Your task to perform on an android device: open sync settings in chrome Image 0: 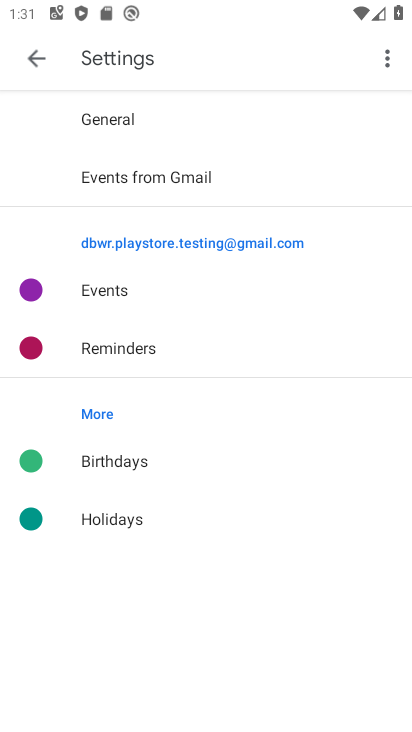
Step 0: press home button
Your task to perform on an android device: open sync settings in chrome Image 1: 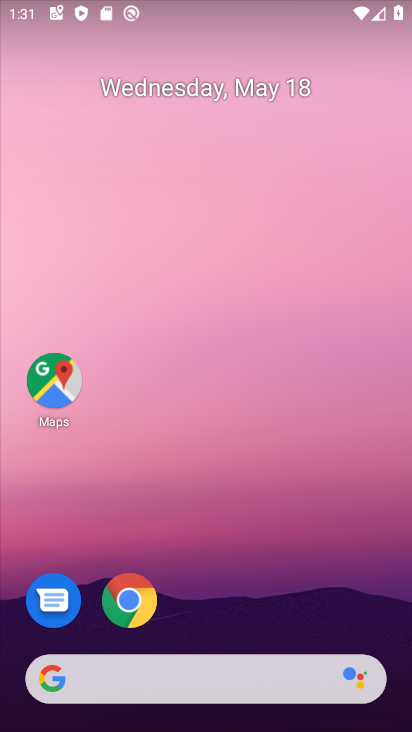
Step 1: click (130, 601)
Your task to perform on an android device: open sync settings in chrome Image 2: 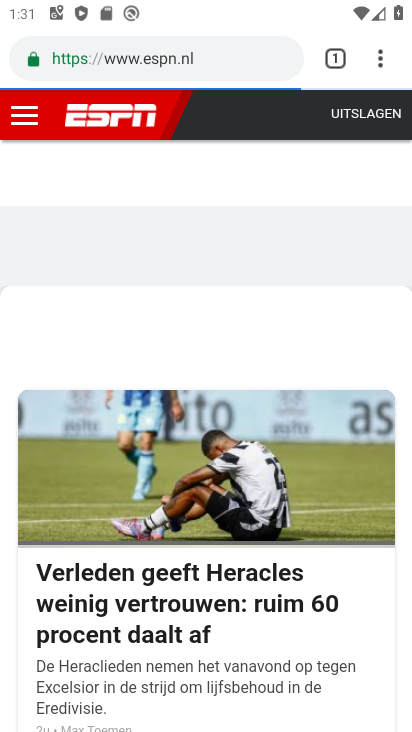
Step 2: click (381, 57)
Your task to perform on an android device: open sync settings in chrome Image 3: 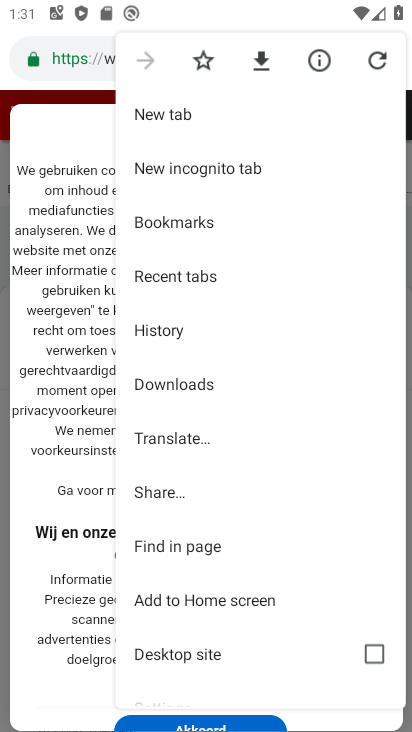
Step 3: drag from (220, 577) to (242, 498)
Your task to perform on an android device: open sync settings in chrome Image 4: 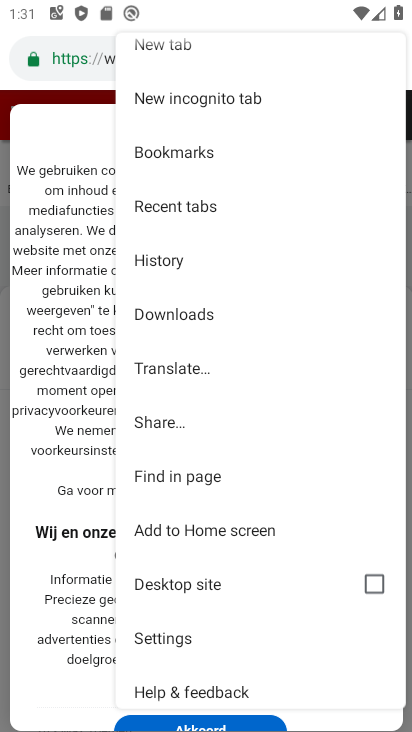
Step 4: drag from (189, 596) to (218, 525)
Your task to perform on an android device: open sync settings in chrome Image 5: 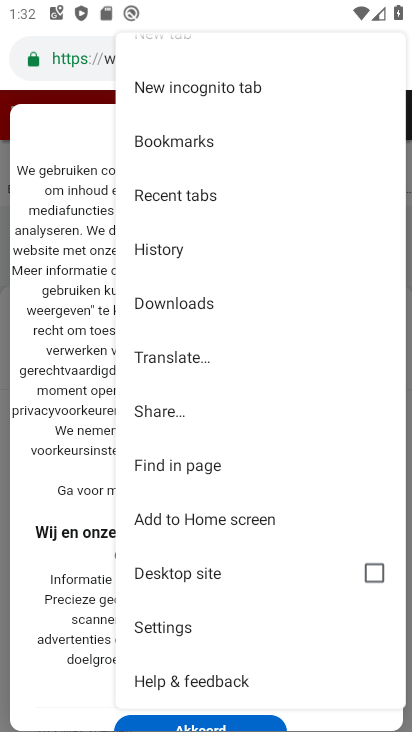
Step 5: click (174, 625)
Your task to perform on an android device: open sync settings in chrome Image 6: 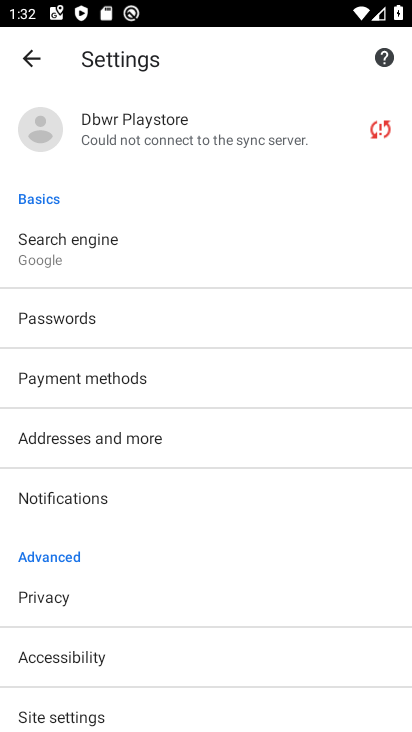
Step 6: drag from (99, 626) to (173, 524)
Your task to perform on an android device: open sync settings in chrome Image 7: 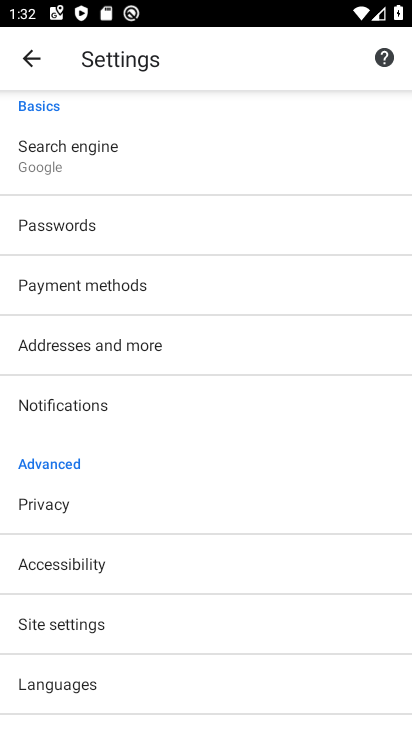
Step 7: drag from (117, 609) to (172, 525)
Your task to perform on an android device: open sync settings in chrome Image 8: 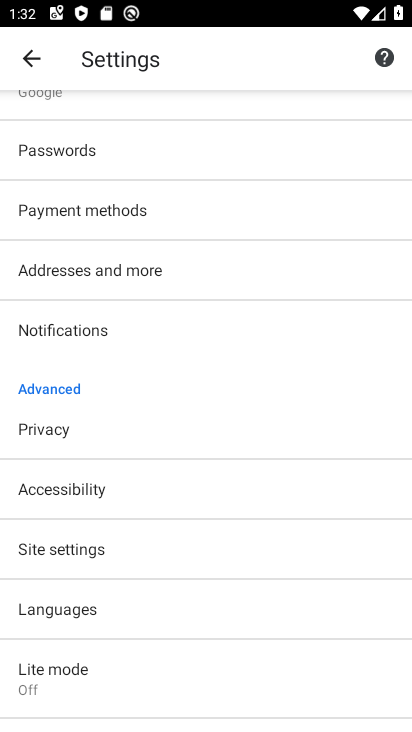
Step 8: click (79, 546)
Your task to perform on an android device: open sync settings in chrome Image 9: 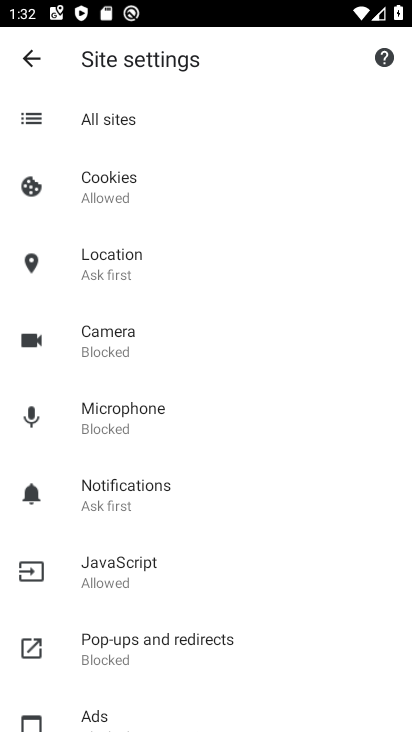
Step 9: drag from (127, 523) to (156, 430)
Your task to perform on an android device: open sync settings in chrome Image 10: 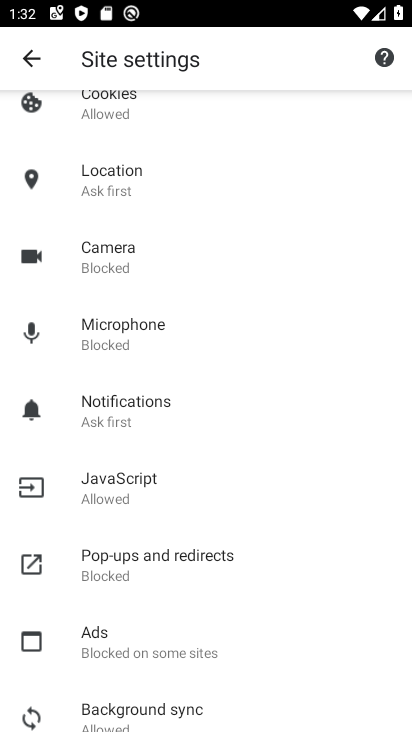
Step 10: drag from (190, 498) to (217, 406)
Your task to perform on an android device: open sync settings in chrome Image 11: 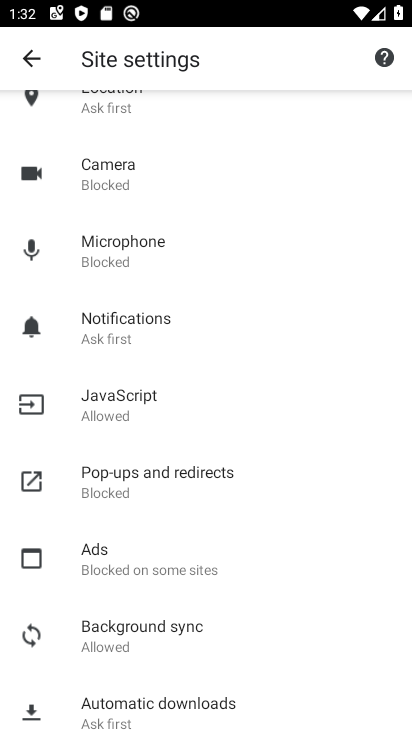
Step 11: drag from (168, 520) to (186, 409)
Your task to perform on an android device: open sync settings in chrome Image 12: 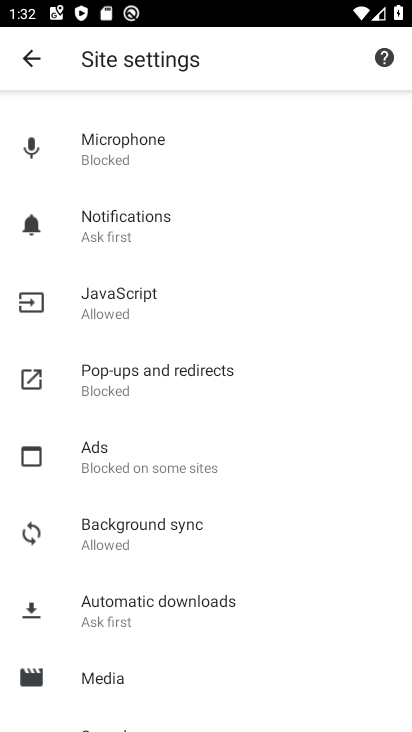
Step 12: click (169, 522)
Your task to perform on an android device: open sync settings in chrome Image 13: 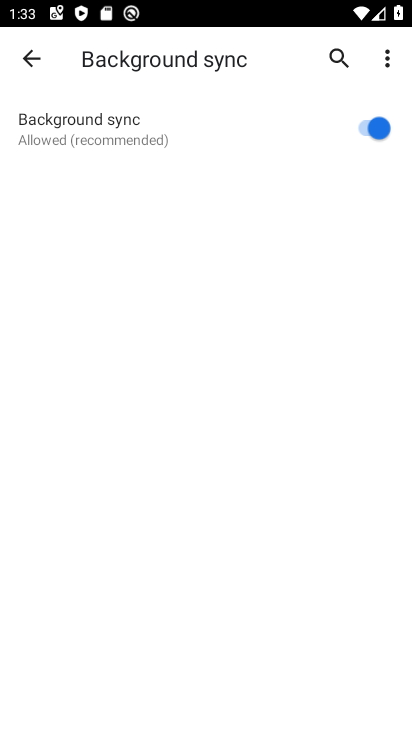
Step 13: task complete